Your task to perform on an android device: search for starred emails in the gmail app Image 0: 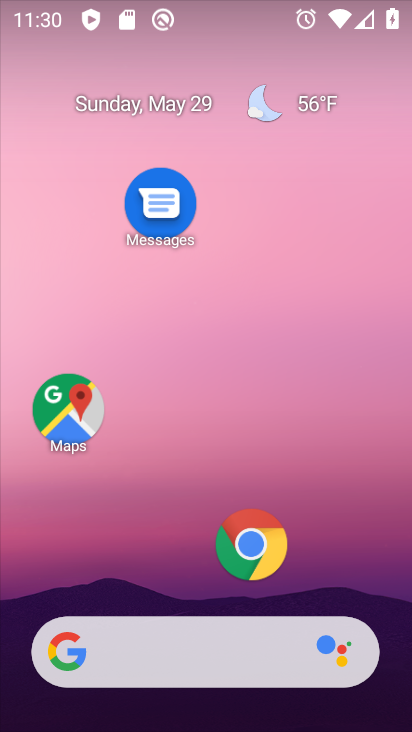
Step 0: drag from (192, 585) to (202, 139)
Your task to perform on an android device: search for starred emails in the gmail app Image 1: 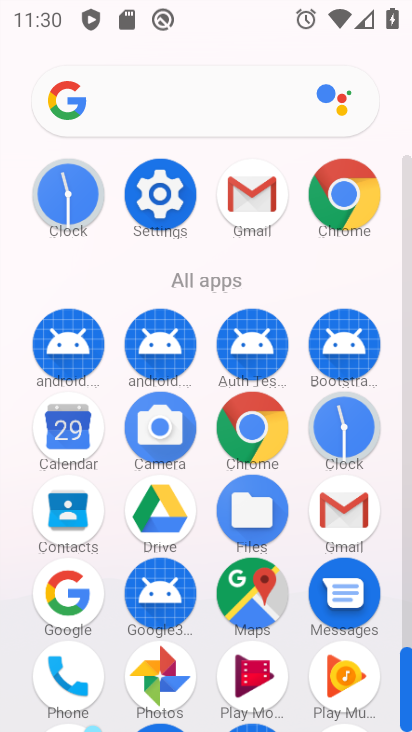
Step 1: click (255, 183)
Your task to perform on an android device: search for starred emails in the gmail app Image 2: 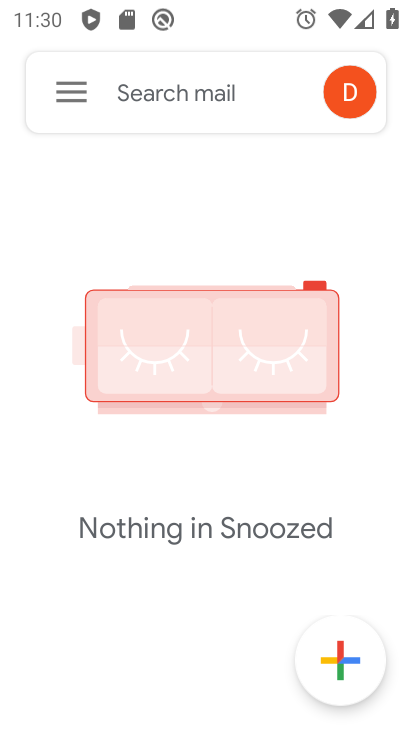
Step 2: click (49, 113)
Your task to perform on an android device: search for starred emails in the gmail app Image 3: 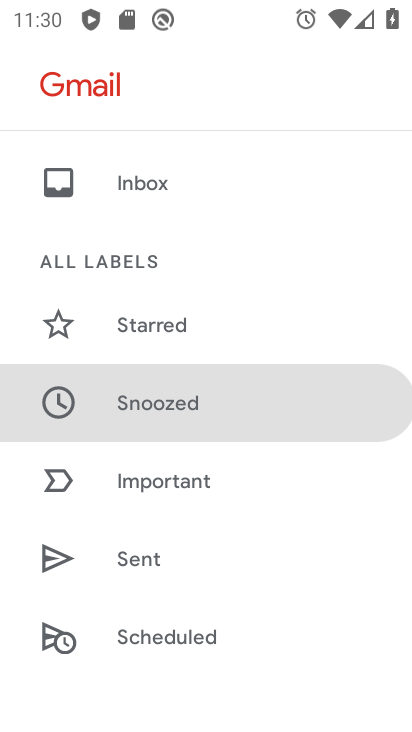
Step 3: click (146, 319)
Your task to perform on an android device: search for starred emails in the gmail app Image 4: 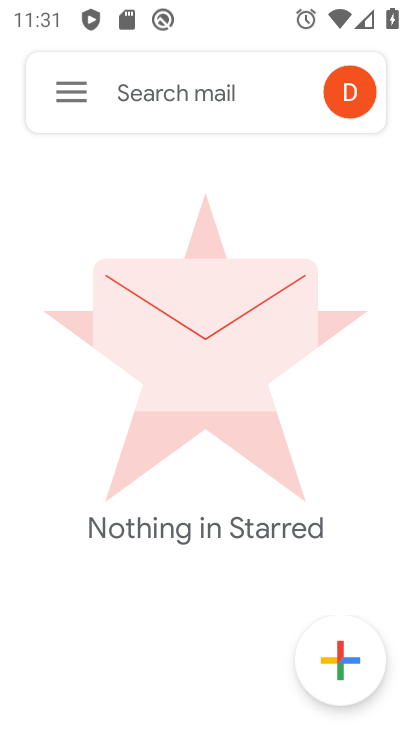
Step 4: task complete